Your task to perform on an android device: Empty the shopping cart on ebay.com. Image 0: 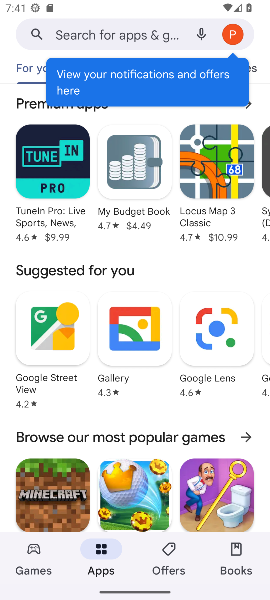
Step 0: press home button
Your task to perform on an android device: Empty the shopping cart on ebay.com. Image 1: 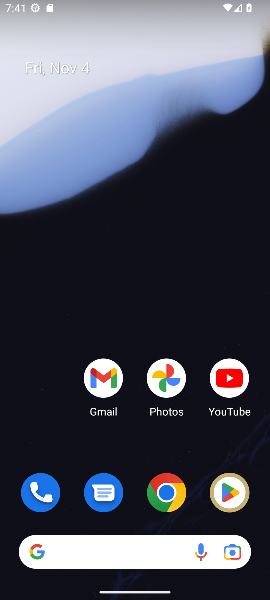
Step 1: drag from (135, 452) to (195, 56)
Your task to perform on an android device: Empty the shopping cart on ebay.com. Image 2: 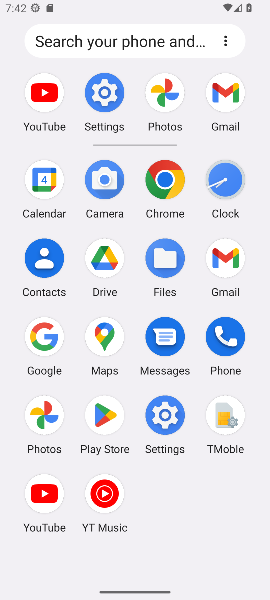
Step 2: click (165, 184)
Your task to perform on an android device: Empty the shopping cart on ebay.com. Image 3: 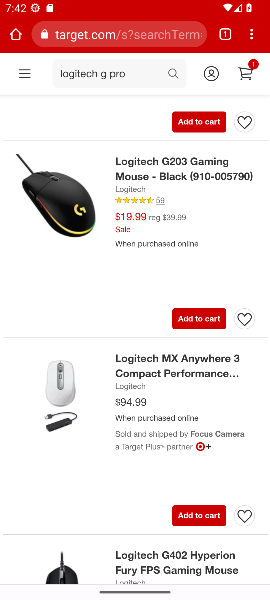
Step 3: click (166, 39)
Your task to perform on an android device: Empty the shopping cart on ebay.com. Image 4: 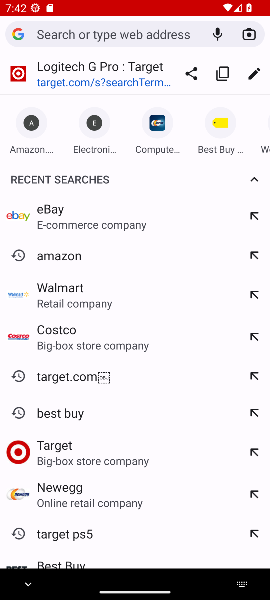
Step 4: type "ebay.com"
Your task to perform on an android device: Empty the shopping cart on ebay.com. Image 5: 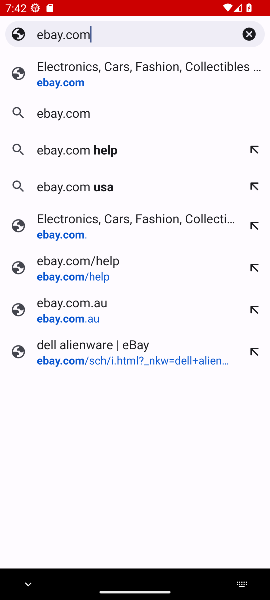
Step 5: press enter
Your task to perform on an android device: Empty the shopping cart on ebay.com. Image 6: 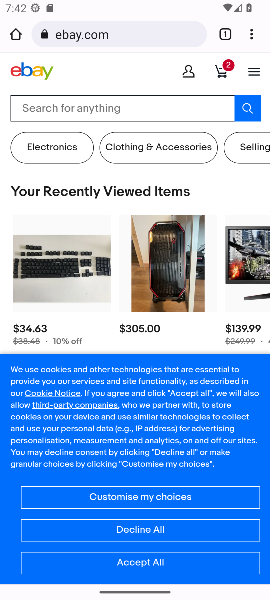
Step 6: click (224, 72)
Your task to perform on an android device: Empty the shopping cart on ebay.com. Image 7: 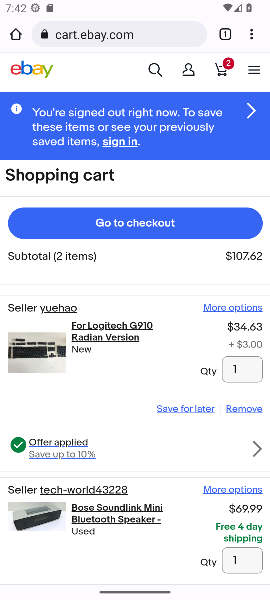
Step 7: click (244, 403)
Your task to perform on an android device: Empty the shopping cart on ebay.com. Image 8: 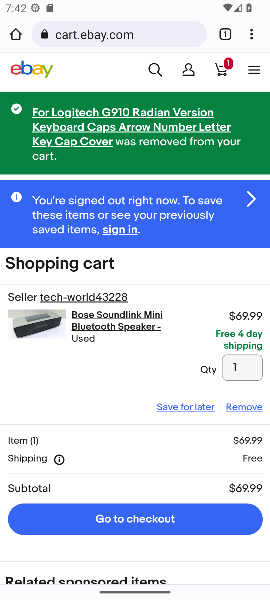
Step 8: click (244, 403)
Your task to perform on an android device: Empty the shopping cart on ebay.com. Image 9: 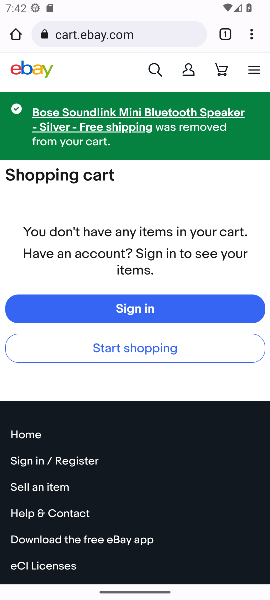
Step 9: task complete